Your task to perform on an android device: Search for Mexican restaurants on Maps Image 0: 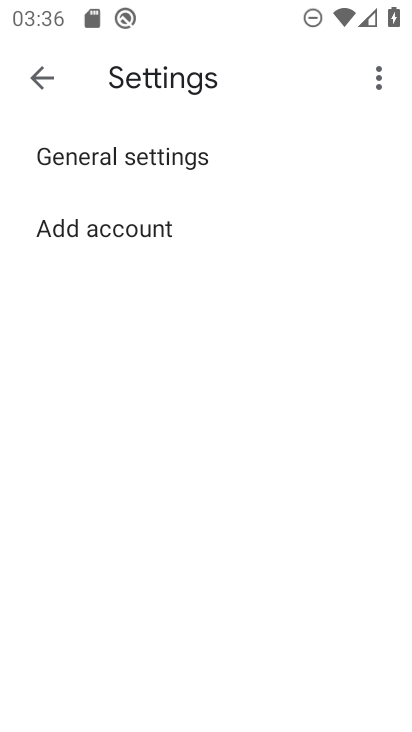
Step 0: press home button
Your task to perform on an android device: Search for Mexican restaurants on Maps Image 1: 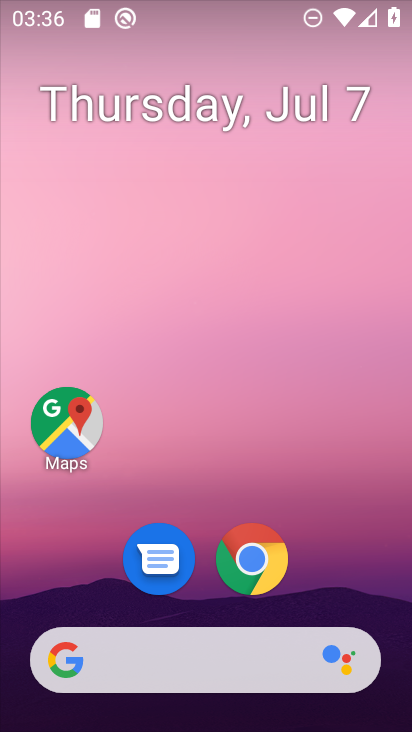
Step 1: drag from (356, 578) to (329, 146)
Your task to perform on an android device: Search for Mexican restaurants on Maps Image 2: 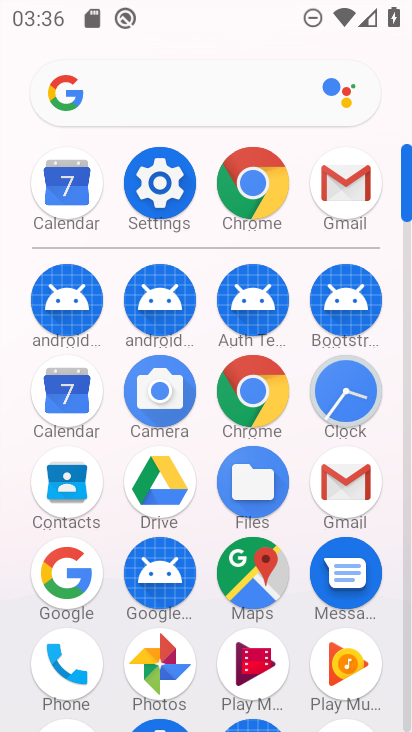
Step 2: click (259, 567)
Your task to perform on an android device: Search for Mexican restaurants on Maps Image 3: 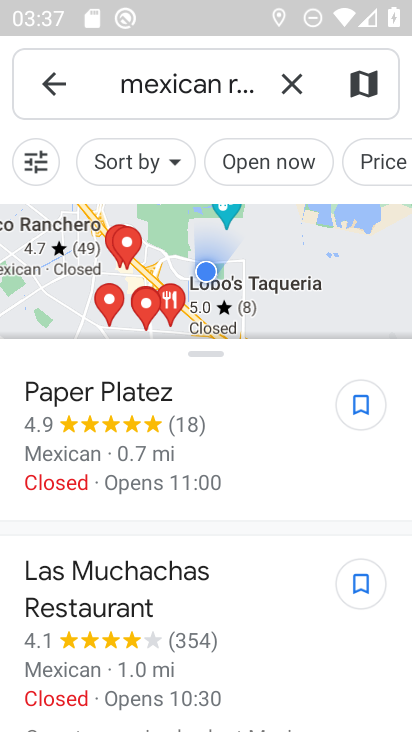
Step 3: task complete